Your task to perform on an android device: remove spam from my inbox in the gmail app Image 0: 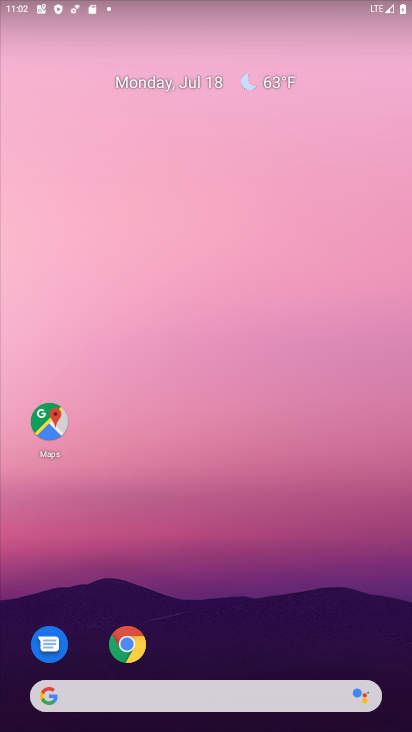
Step 0: drag from (327, 636) to (273, 28)
Your task to perform on an android device: remove spam from my inbox in the gmail app Image 1: 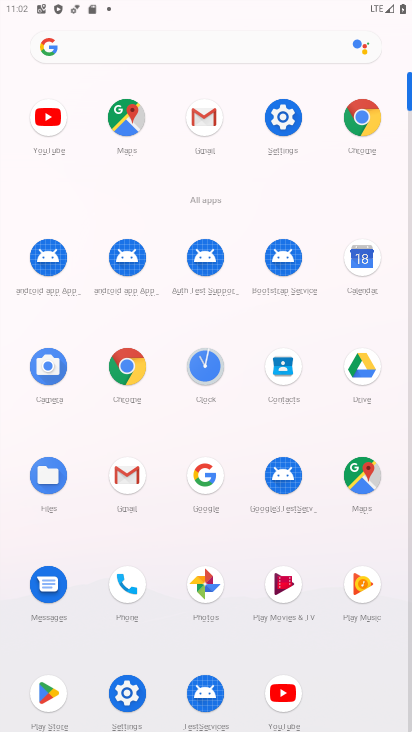
Step 1: click (123, 474)
Your task to perform on an android device: remove spam from my inbox in the gmail app Image 2: 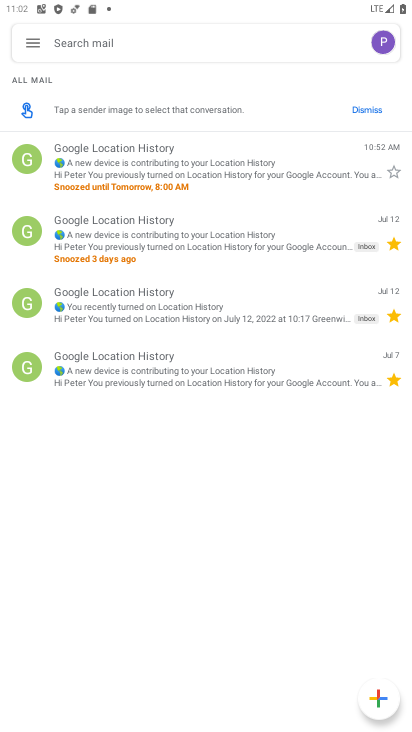
Step 2: click (33, 35)
Your task to perform on an android device: remove spam from my inbox in the gmail app Image 3: 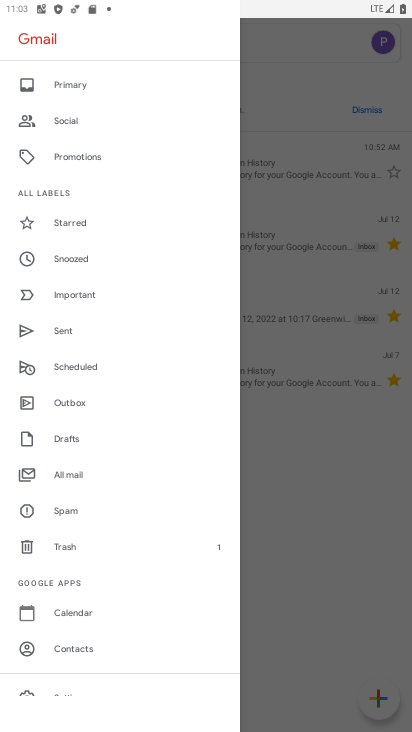
Step 3: click (57, 502)
Your task to perform on an android device: remove spam from my inbox in the gmail app Image 4: 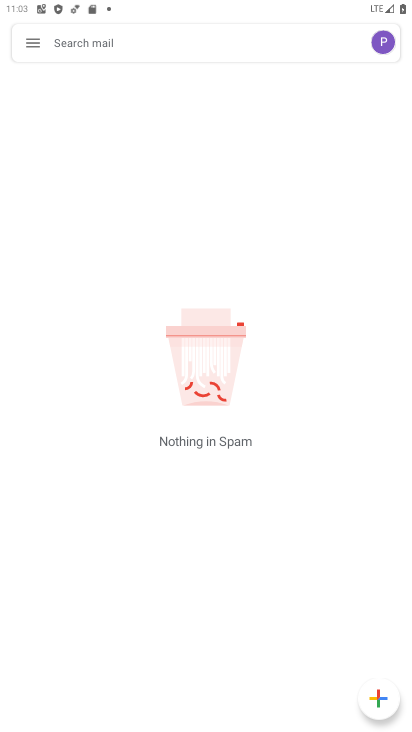
Step 4: task complete